Your task to perform on an android device: What's the weather going to be tomorrow? Image 0: 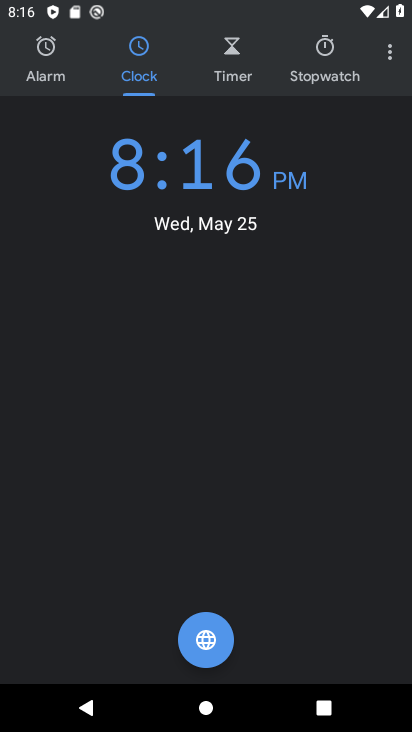
Step 0: press home button
Your task to perform on an android device: What's the weather going to be tomorrow? Image 1: 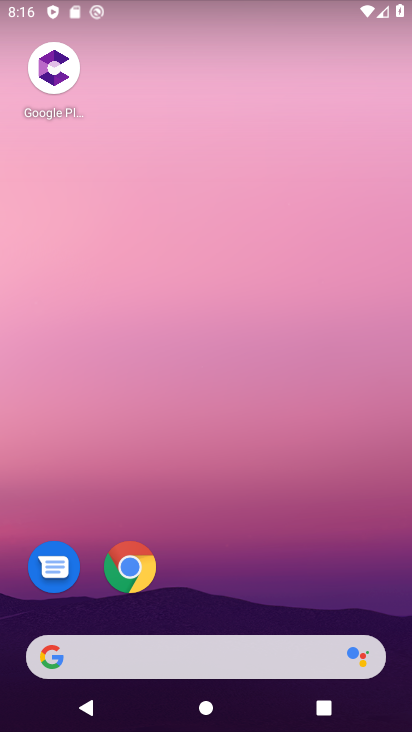
Step 1: click (153, 666)
Your task to perform on an android device: What's the weather going to be tomorrow? Image 2: 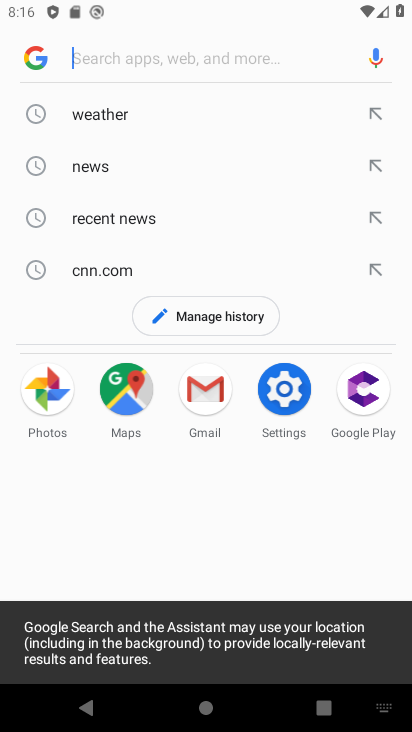
Step 2: click (123, 118)
Your task to perform on an android device: What's the weather going to be tomorrow? Image 3: 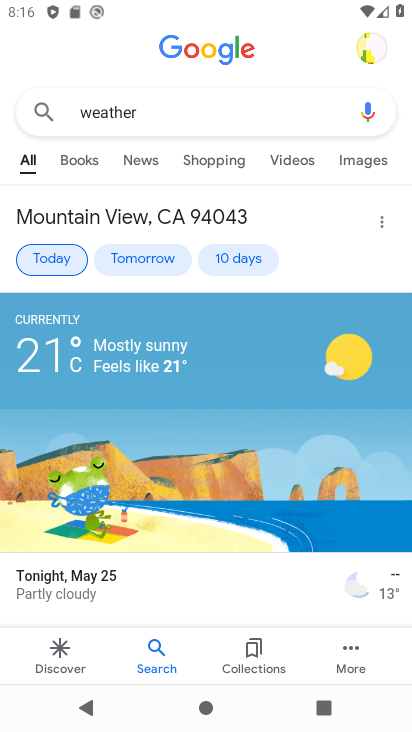
Step 3: click (57, 256)
Your task to perform on an android device: What's the weather going to be tomorrow? Image 4: 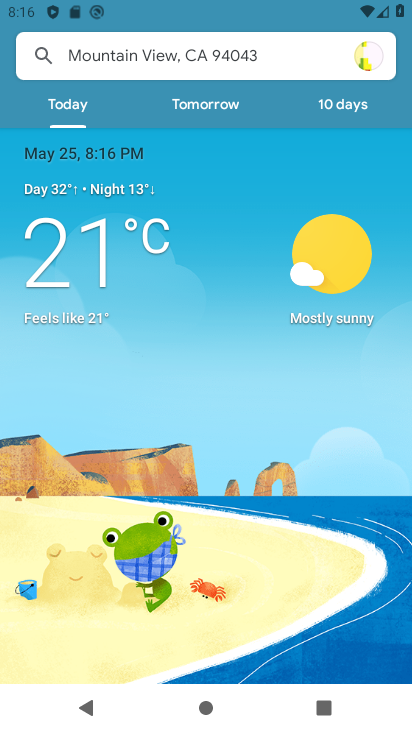
Step 4: click (208, 105)
Your task to perform on an android device: What's the weather going to be tomorrow? Image 5: 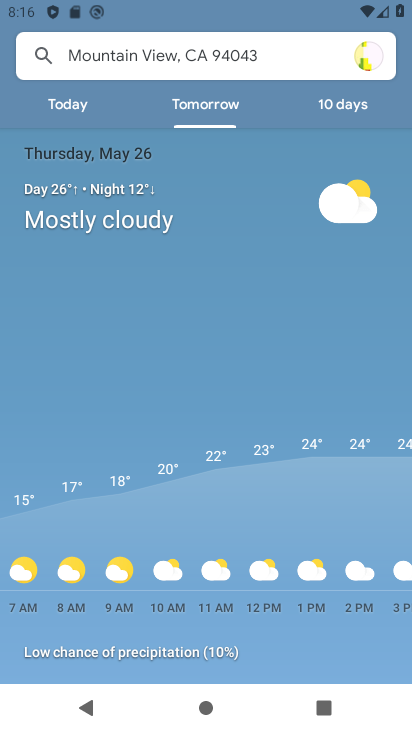
Step 5: task complete